Your task to perform on an android device: Clear the cart on walmart. Search for duracell triple a on walmart, select the first entry, and add it to the cart. Image 0: 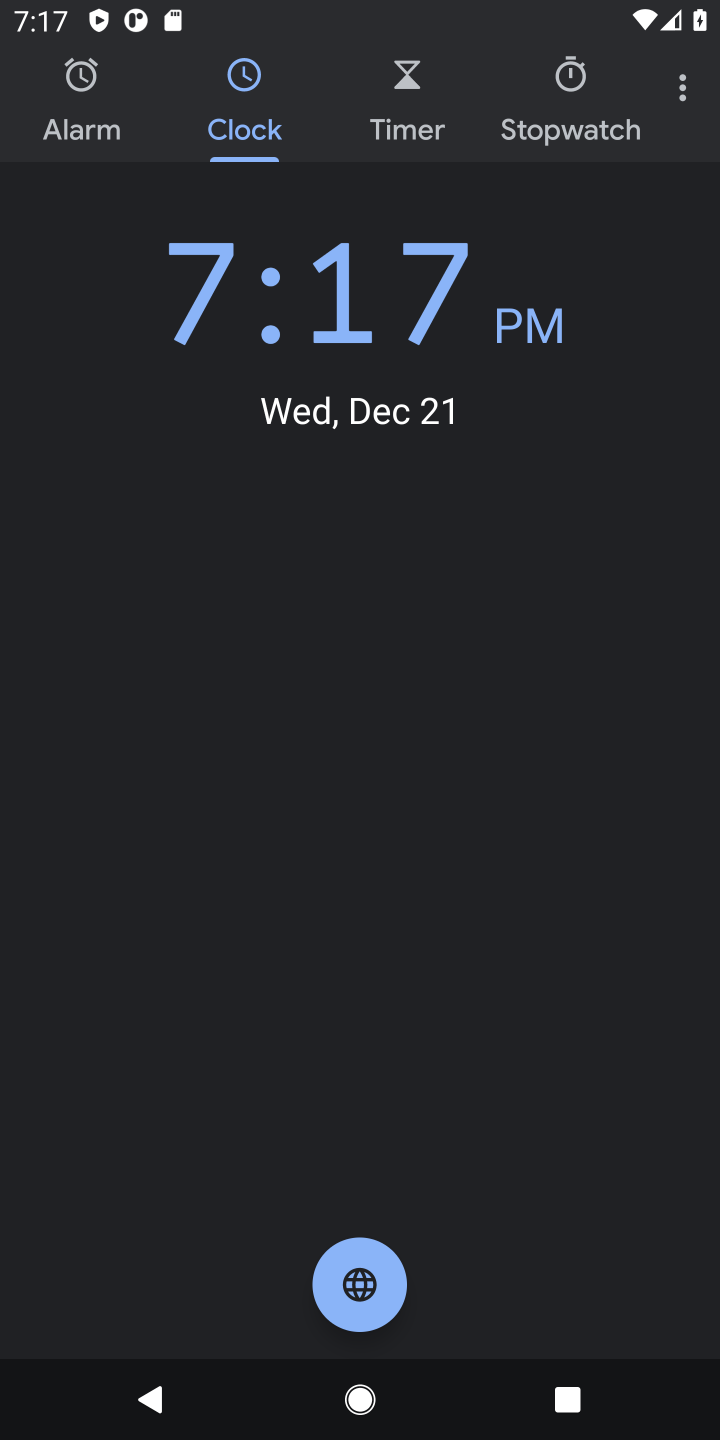
Step 0: press home button
Your task to perform on an android device: Clear the cart on walmart. Search for duracell triple a on walmart, select the first entry, and add it to the cart. Image 1: 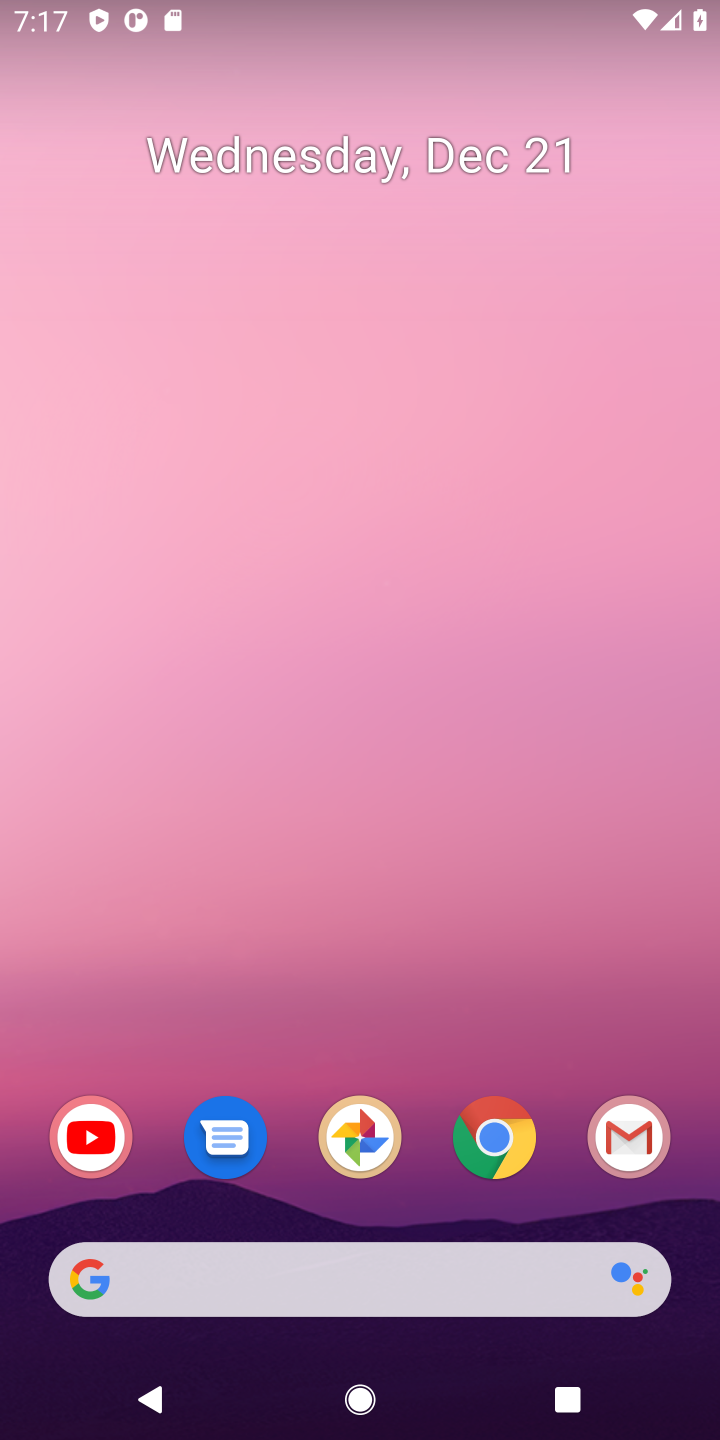
Step 1: click (510, 1151)
Your task to perform on an android device: Clear the cart on walmart. Search for duracell triple a on walmart, select the first entry, and add it to the cart. Image 2: 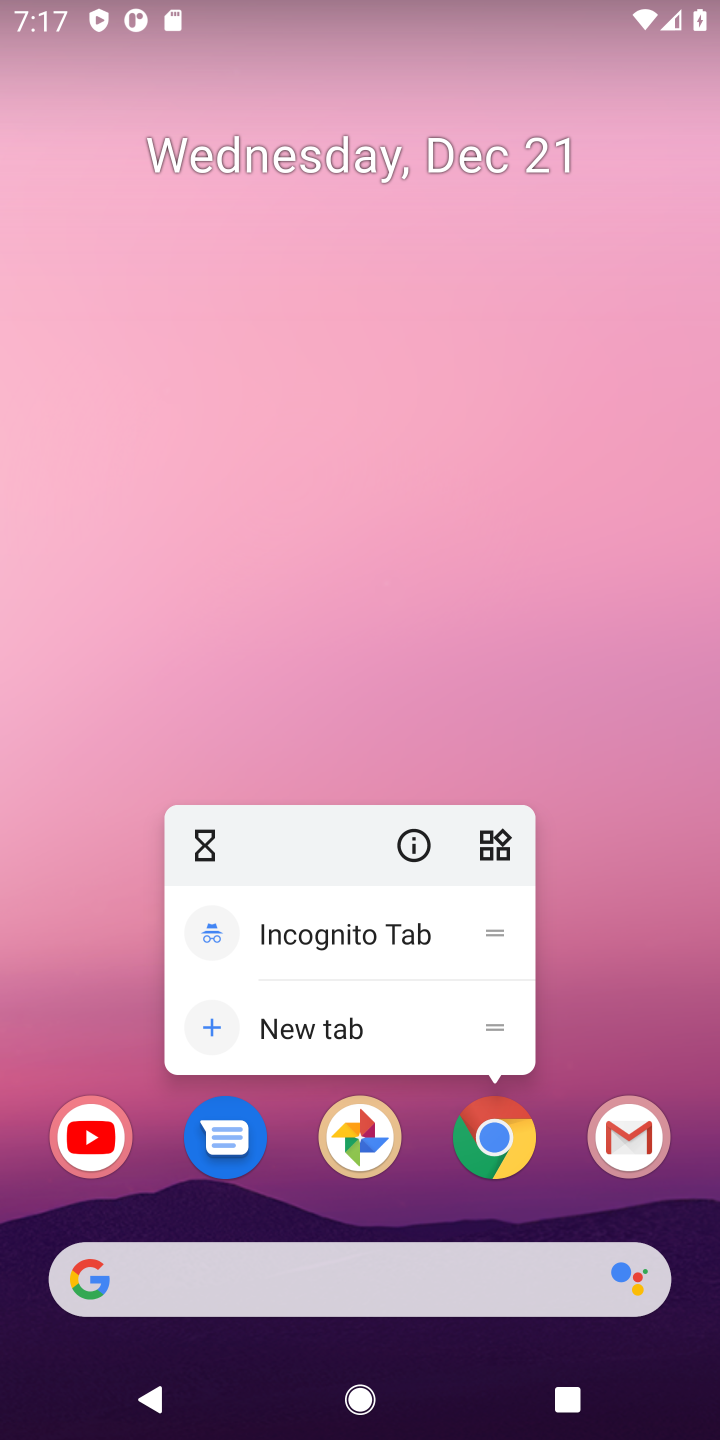
Step 2: click (509, 1148)
Your task to perform on an android device: Clear the cart on walmart. Search for duracell triple a on walmart, select the first entry, and add it to the cart. Image 3: 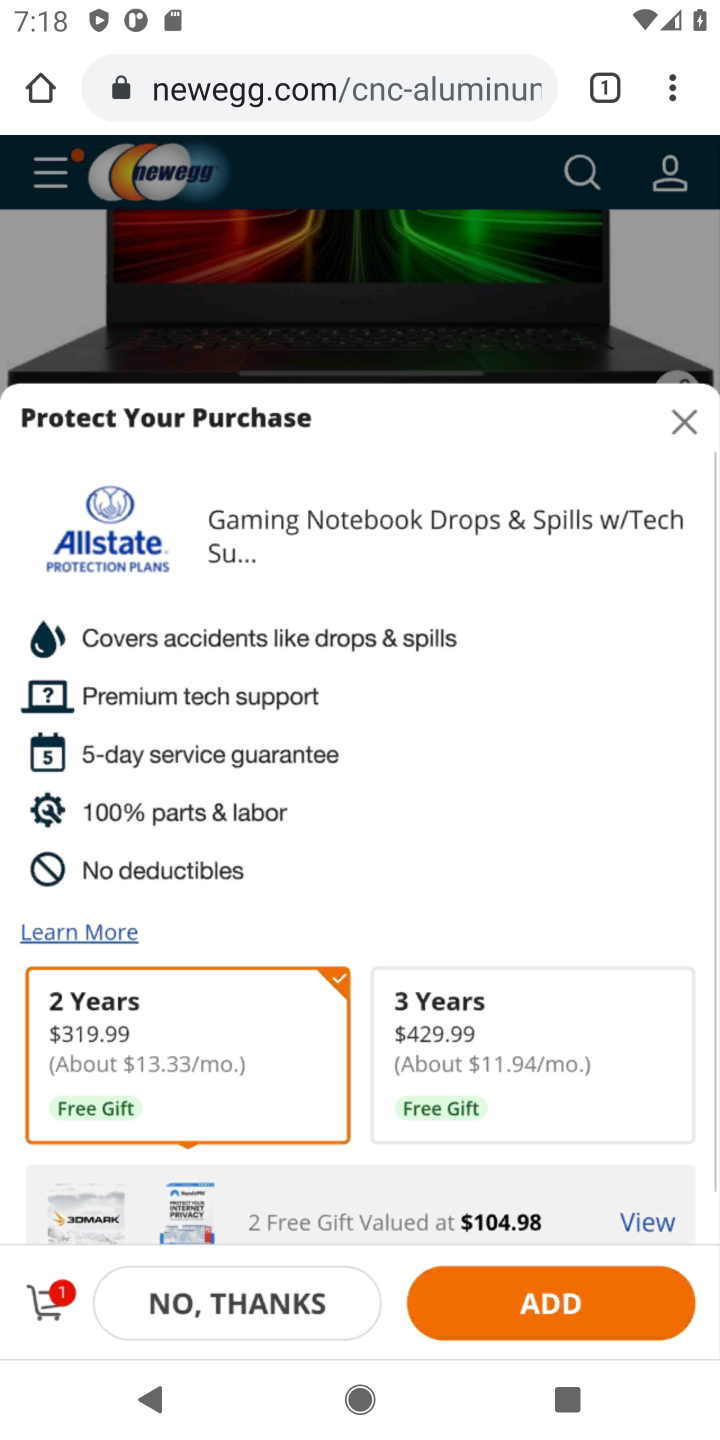
Step 3: click (302, 100)
Your task to perform on an android device: Clear the cart on walmart. Search for duracell triple a on walmart, select the first entry, and add it to the cart. Image 4: 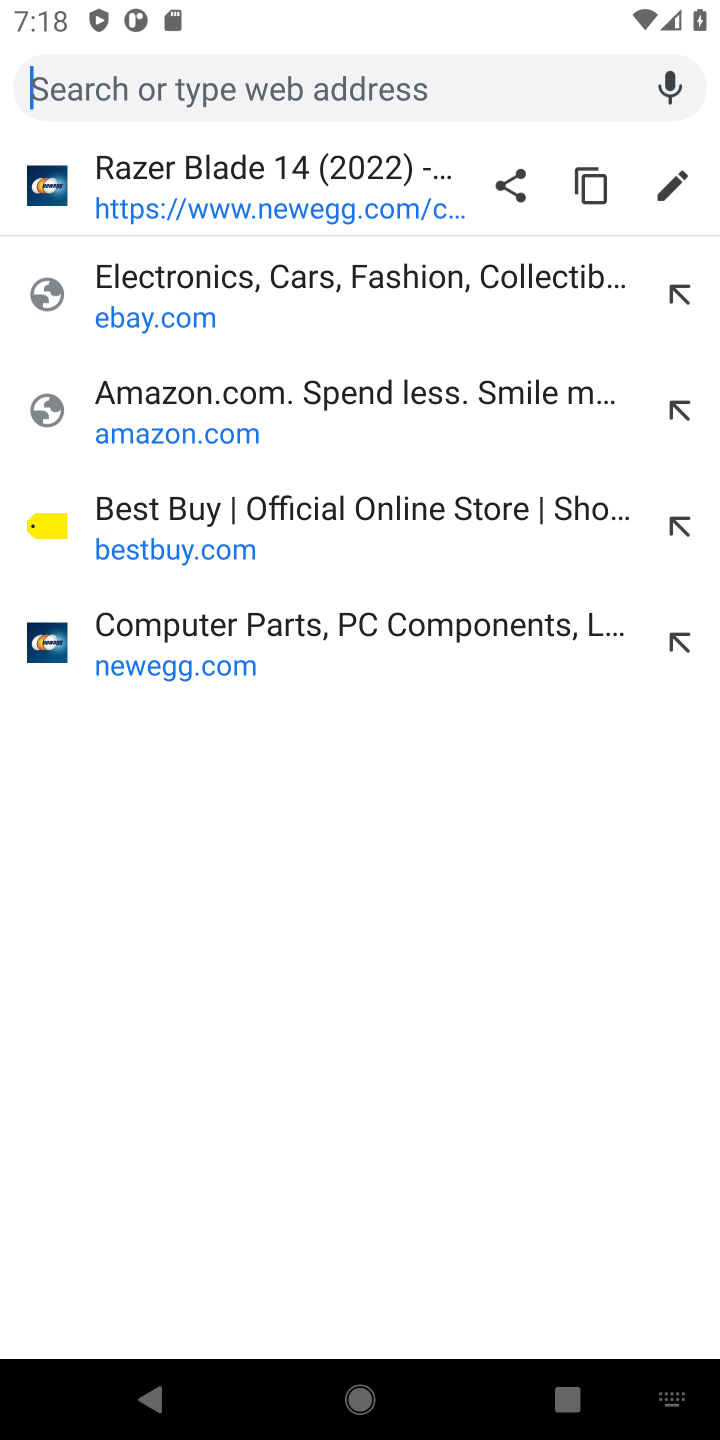
Step 4: type "walmart.com"
Your task to perform on an android device: Clear the cart on walmart. Search for duracell triple a on walmart, select the first entry, and add it to the cart. Image 5: 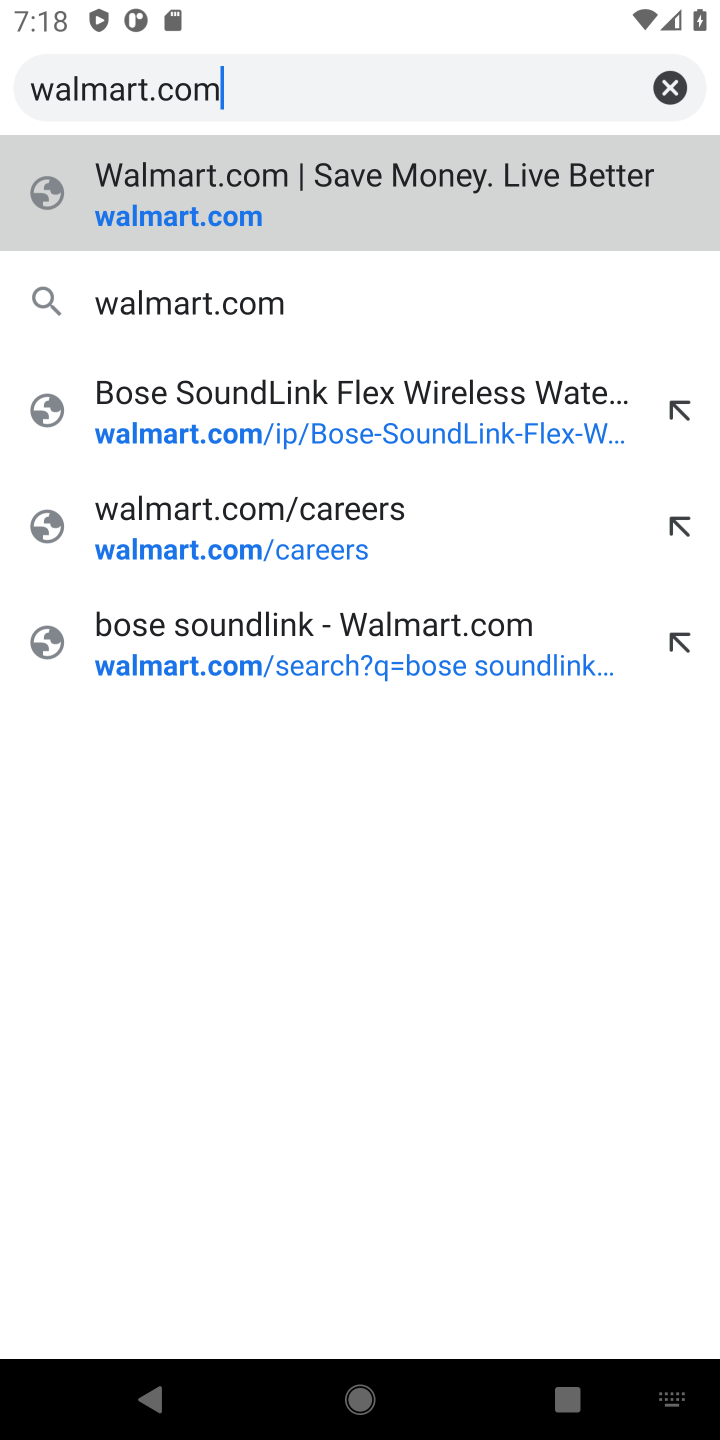
Step 5: click (145, 232)
Your task to perform on an android device: Clear the cart on walmart. Search for duracell triple a on walmart, select the first entry, and add it to the cart. Image 6: 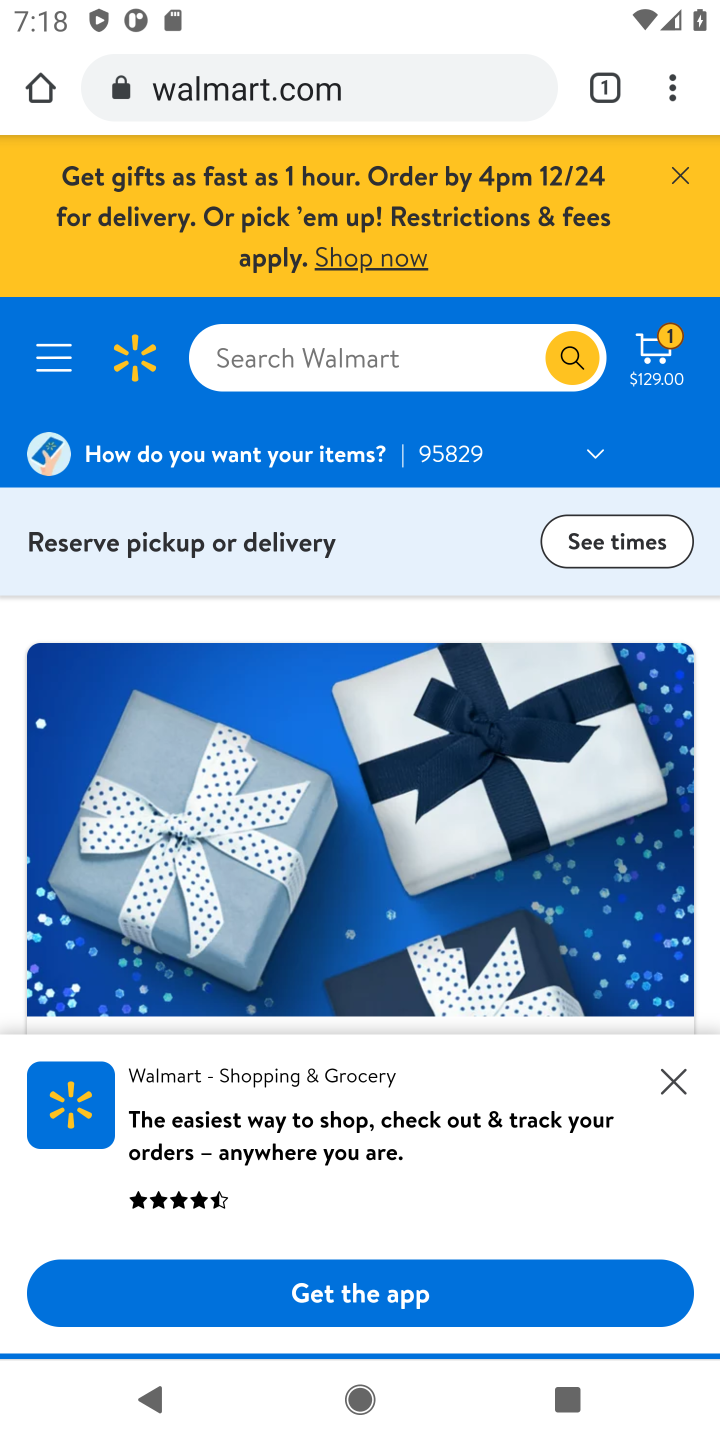
Step 6: click (650, 353)
Your task to perform on an android device: Clear the cart on walmart. Search for duracell triple a on walmart, select the first entry, and add it to the cart. Image 7: 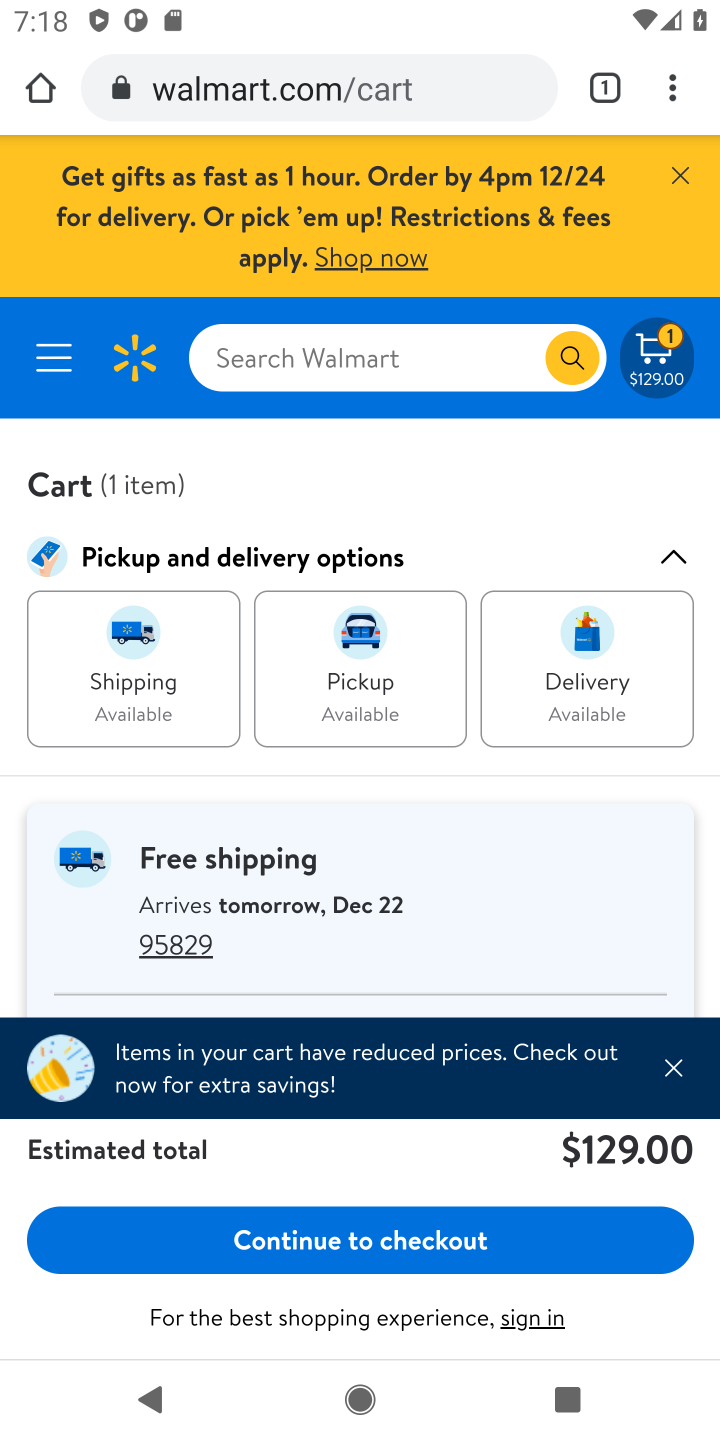
Step 7: drag from (396, 784) to (345, 161)
Your task to perform on an android device: Clear the cart on walmart. Search for duracell triple a on walmart, select the first entry, and add it to the cart. Image 8: 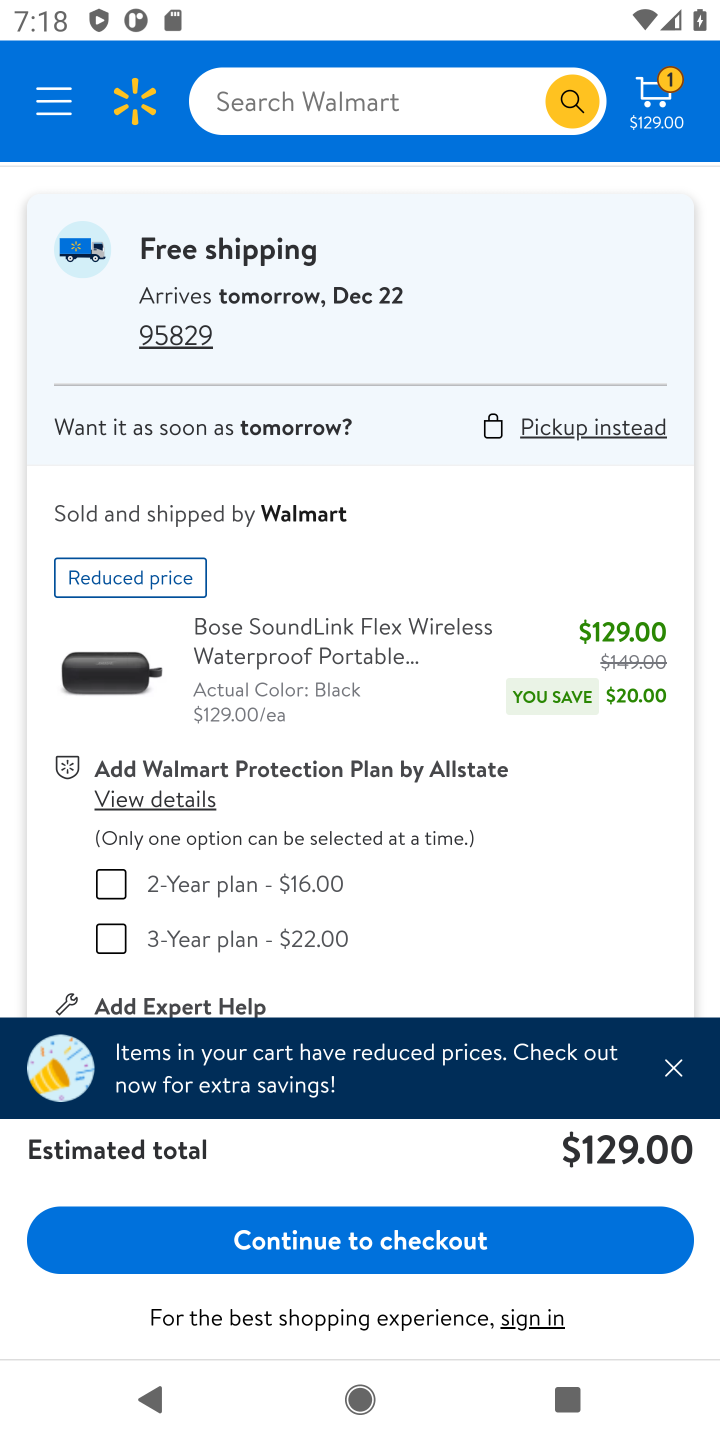
Step 8: drag from (269, 683) to (246, 297)
Your task to perform on an android device: Clear the cart on walmart. Search for duracell triple a on walmart, select the first entry, and add it to the cart. Image 9: 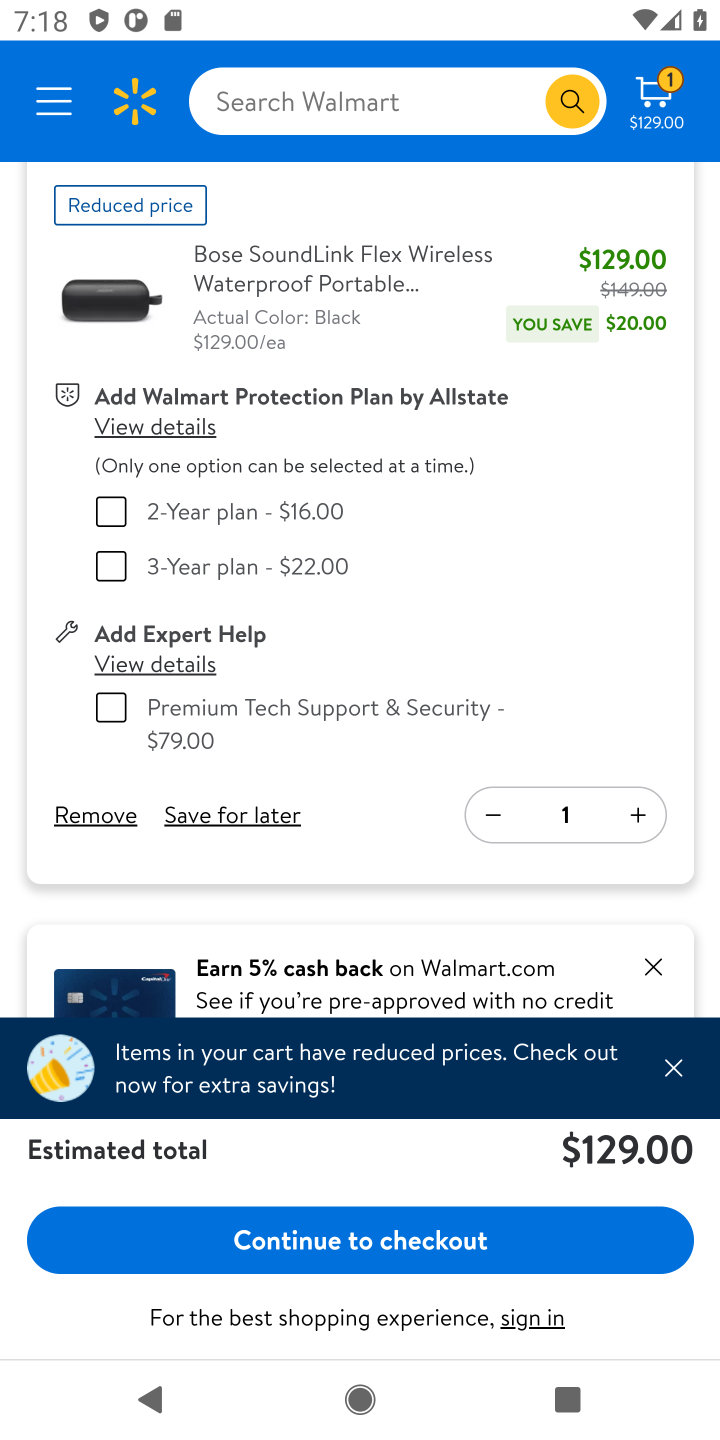
Step 9: click (85, 824)
Your task to perform on an android device: Clear the cart on walmart. Search for duracell triple a on walmart, select the first entry, and add it to the cart. Image 10: 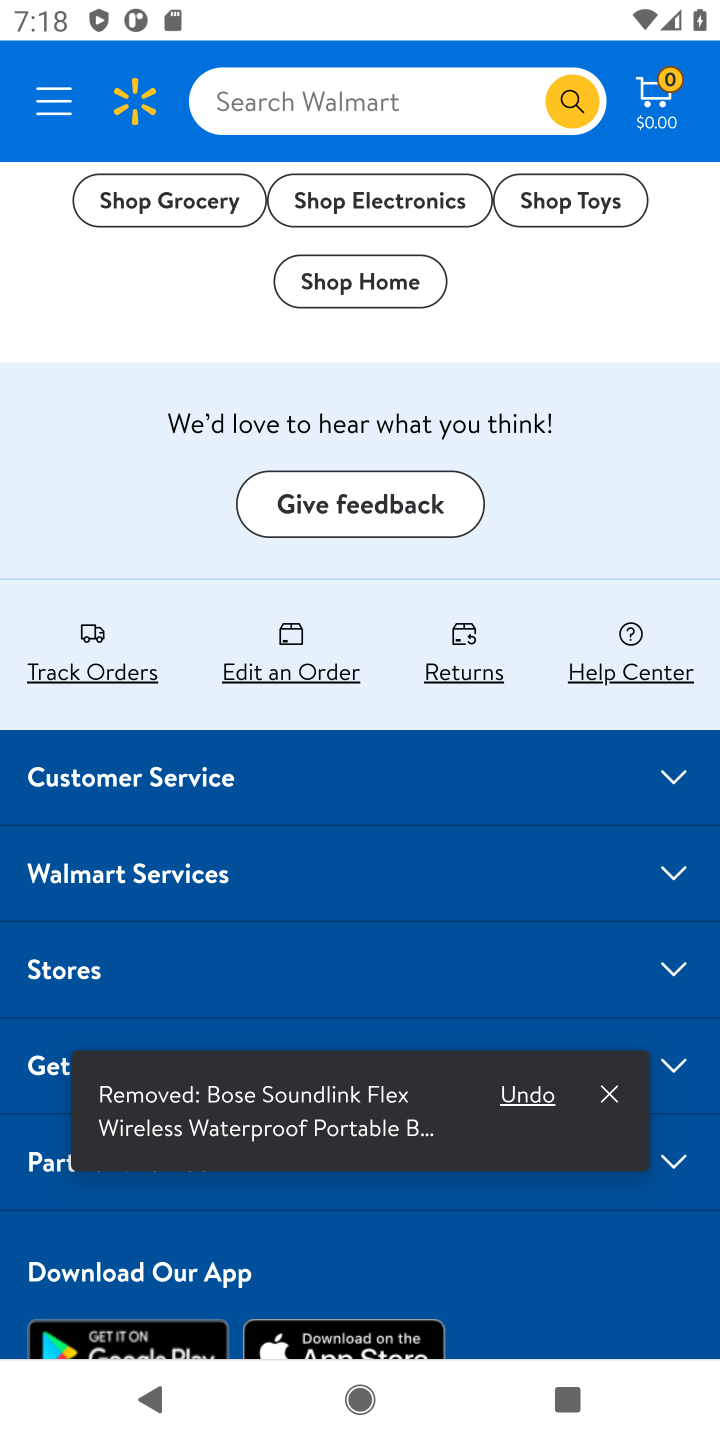
Step 10: drag from (156, 453) to (156, 962)
Your task to perform on an android device: Clear the cart on walmart. Search for duracell triple a on walmart, select the first entry, and add it to the cart. Image 11: 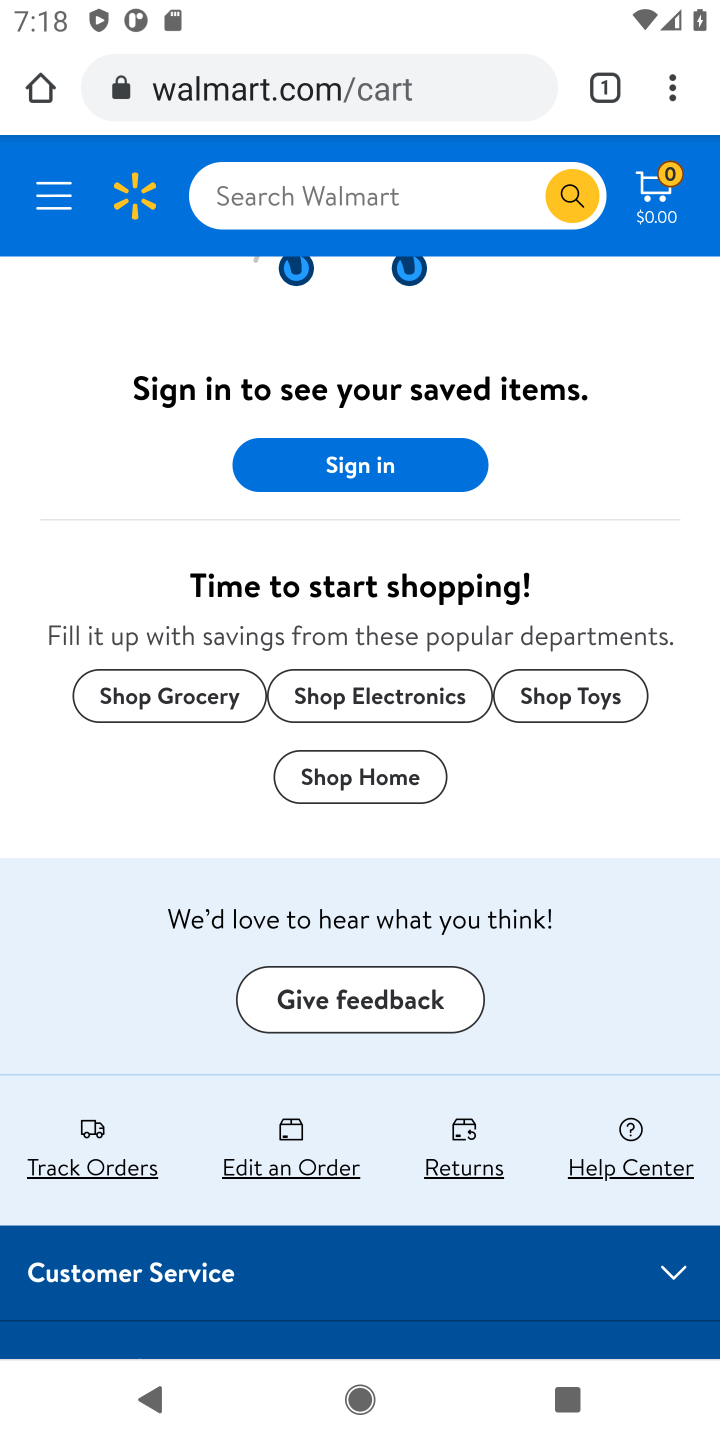
Step 11: click (292, 211)
Your task to perform on an android device: Clear the cart on walmart. Search for duracell triple a on walmart, select the first entry, and add it to the cart. Image 12: 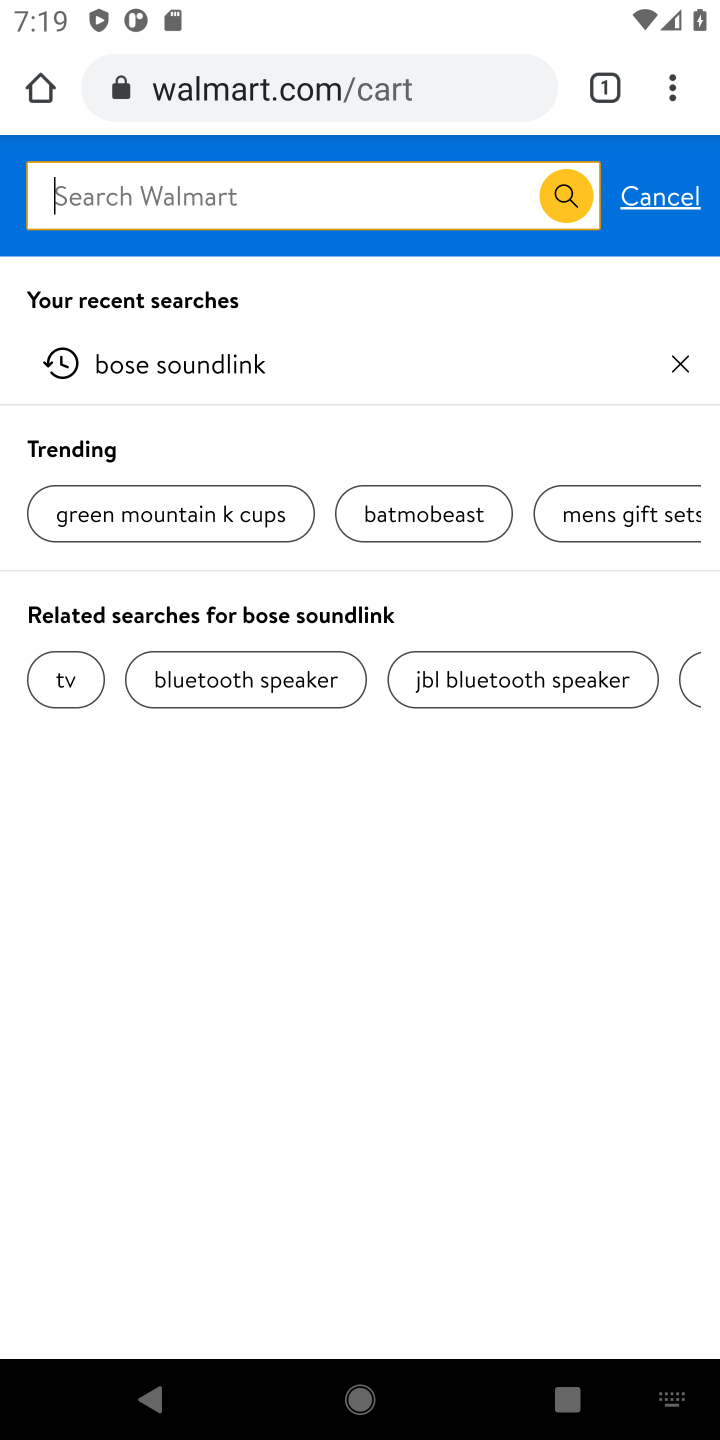
Step 12: type "duracell triple a"
Your task to perform on an android device: Clear the cart on walmart. Search for duracell triple a on walmart, select the first entry, and add it to the cart. Image 13: 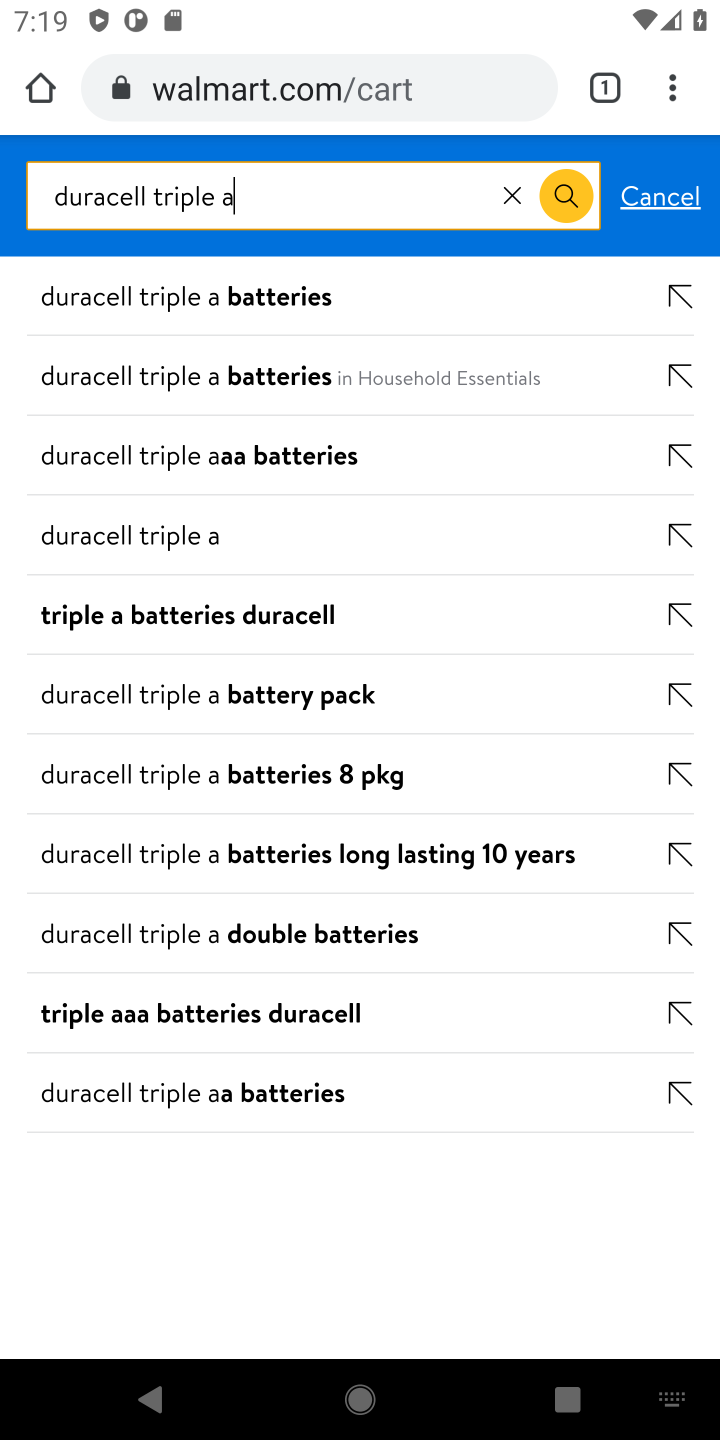
Step 13: click (205, 303)
Your task to perform on an android device: Clear the cart on walmart. Search for duracell triple a on walmart, select the first entry, and add it to the cart. Image 14: 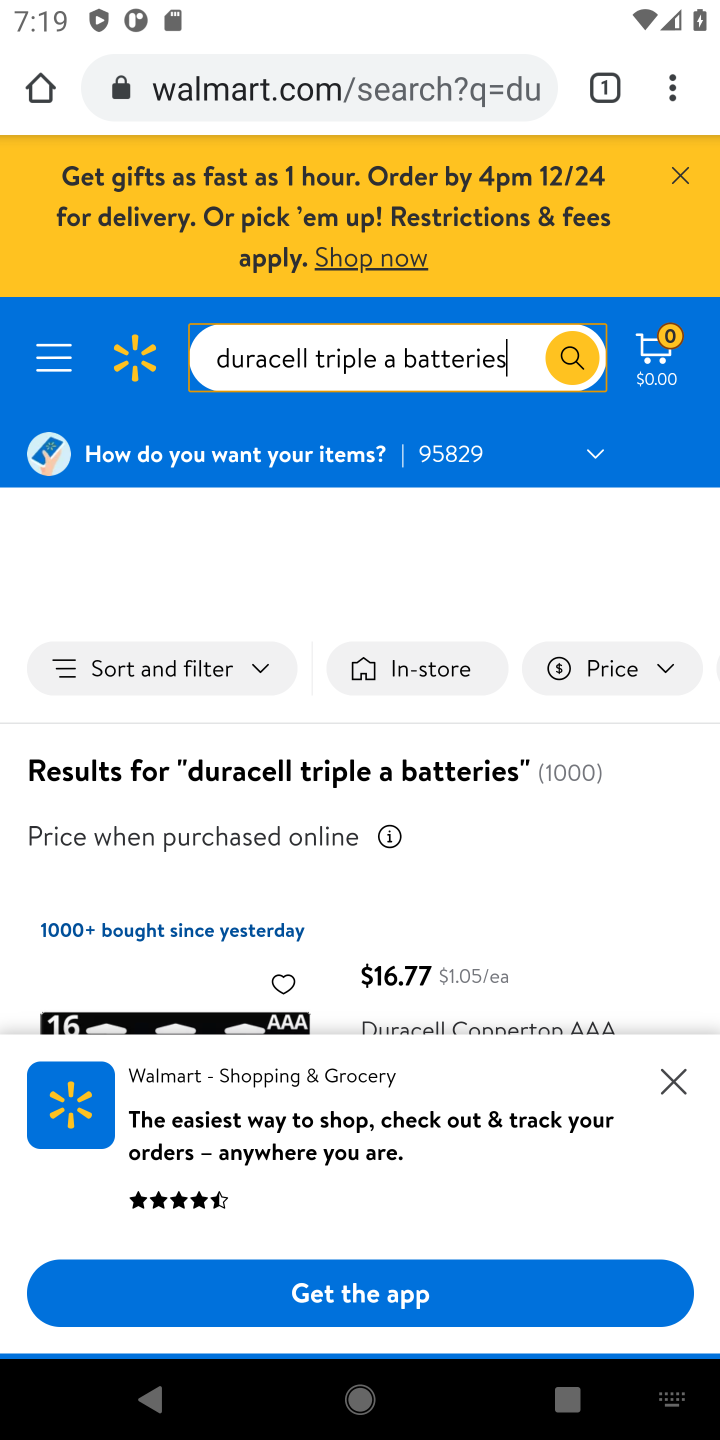
Step 14: click (683, 1086)
Your task to perform on an android device: Clear the cart on walmart. Search for duracell triple a on walmart, select the first entry, and add it to the cart. Image 15: 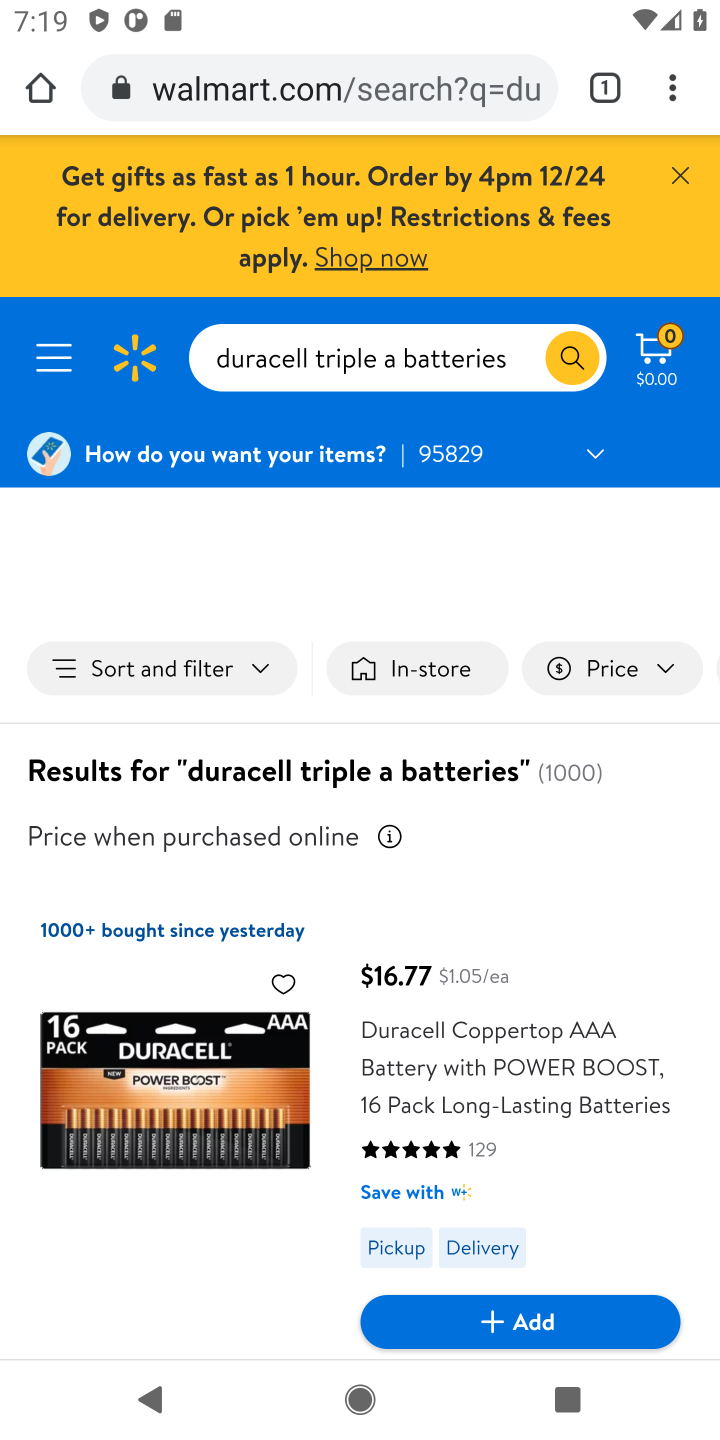
Step 15: drag from (276, 966) to (299, 555)
Your task to perform on an android device: Clear the cart on walmart. Search for duracell triple a on walmart, select the first entry, and add it to the cart. Image 16: 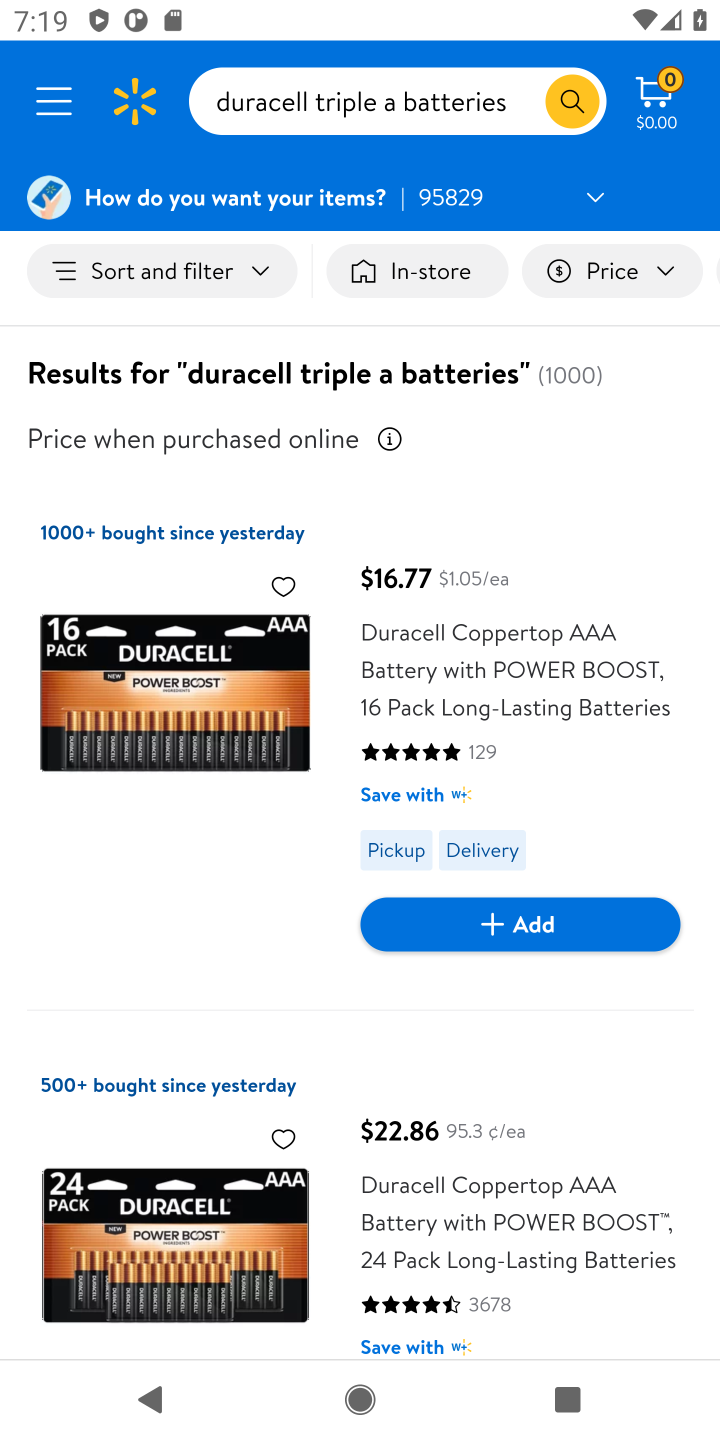
Step 16: click (532, 928)
Your task to perform on an android device: Clear the cart on walmart. Search for duracell triple a on walmart, select the first entry, and add it to the cart. Image 17: 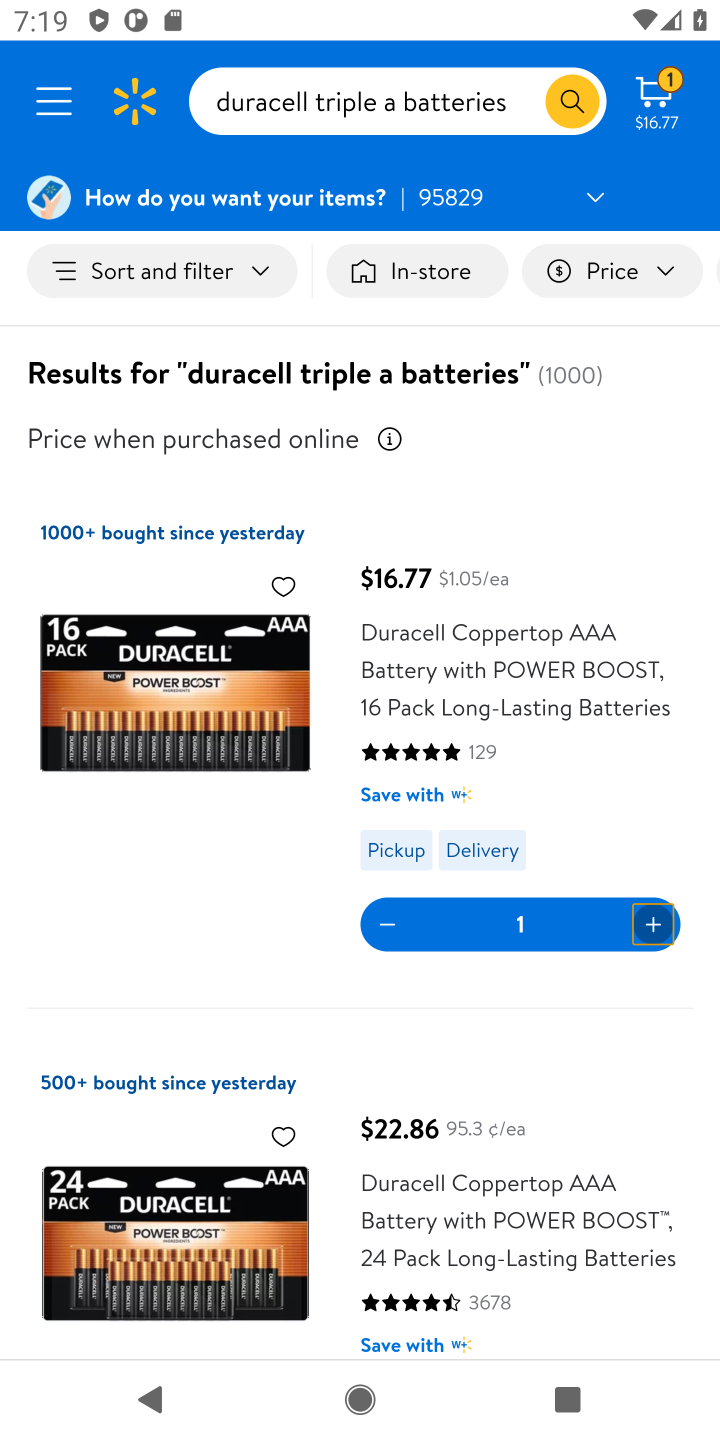
Step 17: task complete